Your task to perform on an android device: Go to eBay Image 0: 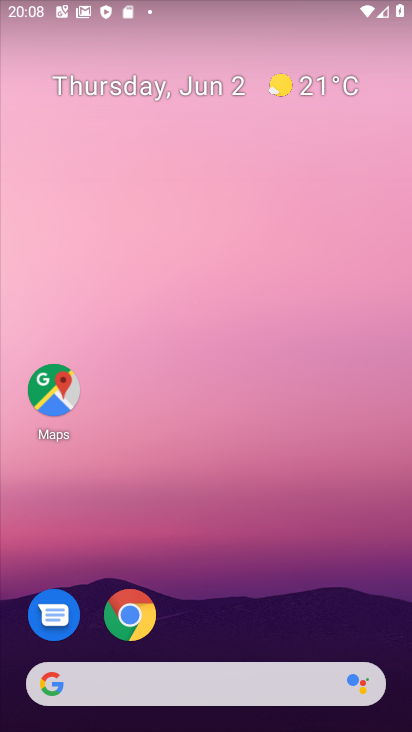
Step 0: task complete